Your task to perform on an android device: toggle location history Image 0: 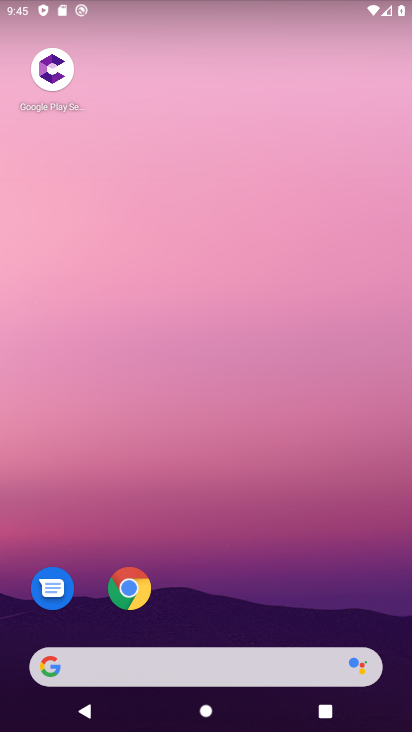
Step 0: drag from (217, 573) to (315, 110)
Your task to perform on an android device: toggle location history Image 1: 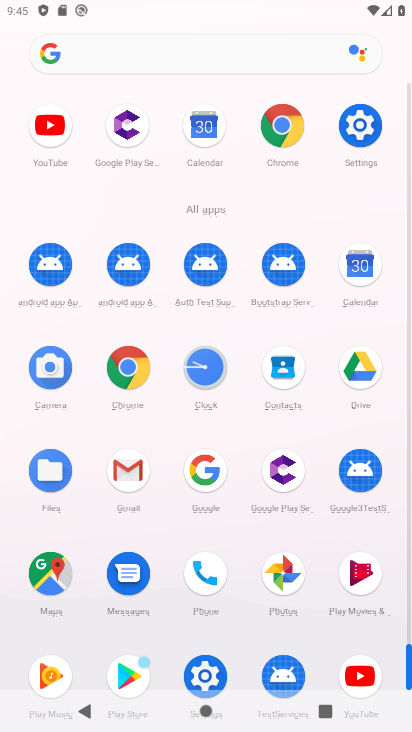
Step 1: click (371, 137)
Your task to perform on an android device: toggle location history Image 2: 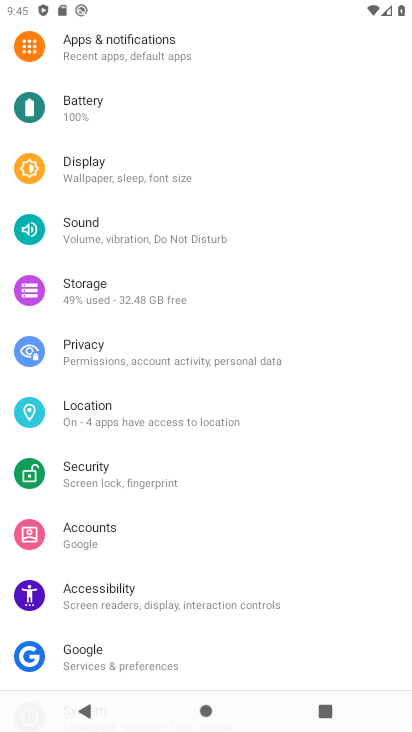
Step 2: click (162, 427)
Your task to perform on an android device: toggle location history Image 3: 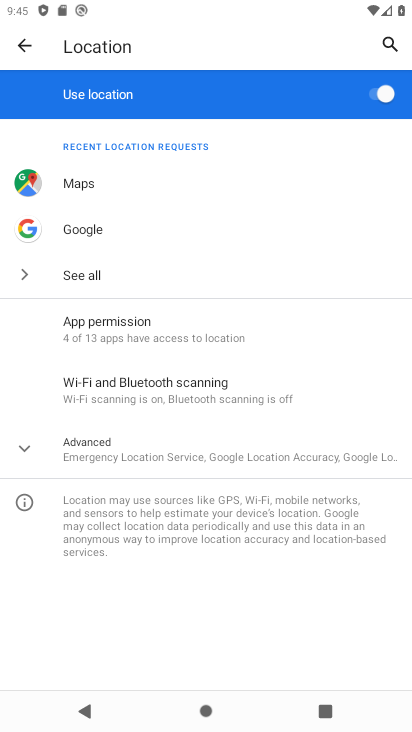
Step 3: click (151, 456)
Your task to perform on an android device: toggle location history Image 4: 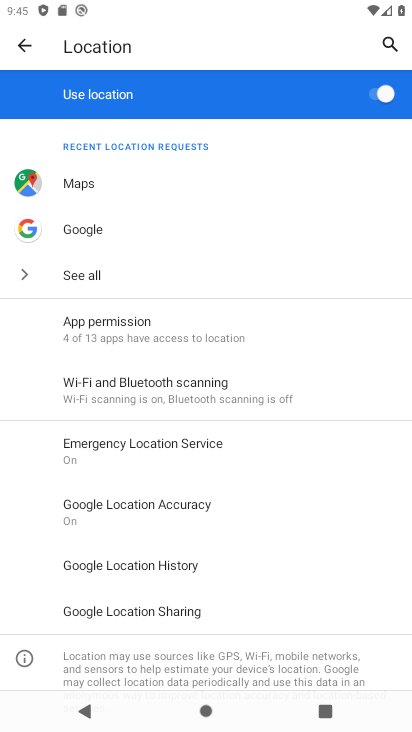
Step 4: click (169, 571)
Your task to perform on an android device: toggle location history Image 5: 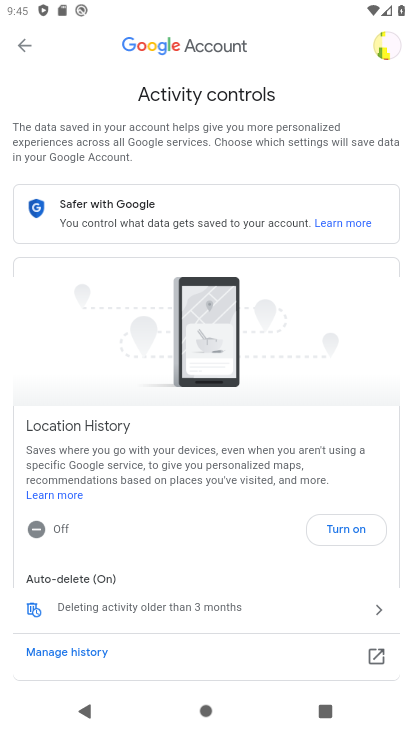
Step 5: click (337, 523)
Your task to perform on an android device: toggle location history Image 6: 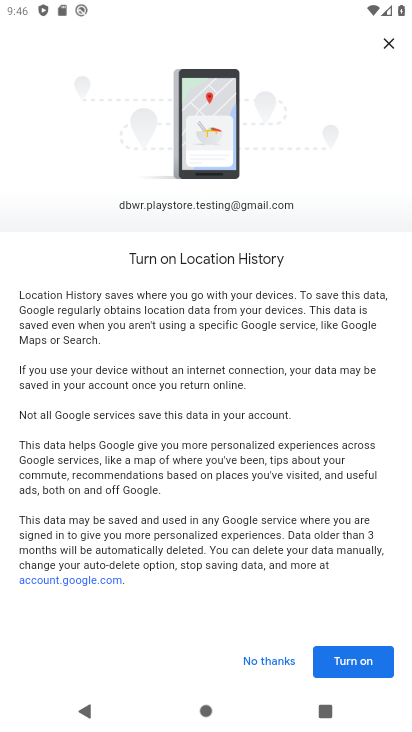
Step 6: click (353, 665)
Your task to perform on an android device: toggle location history Image 7: 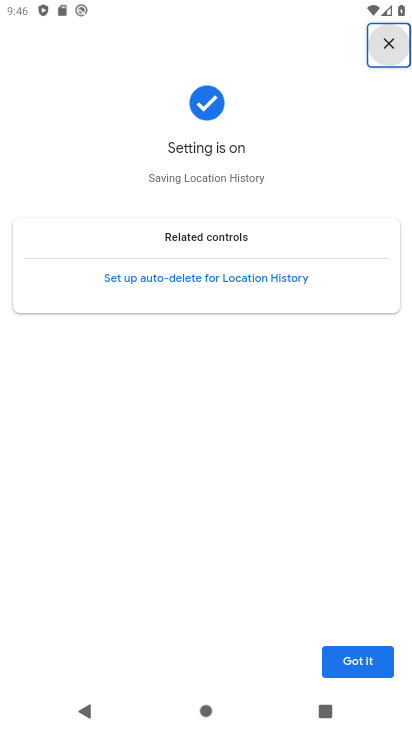
Step 7: click (357, 657)
Your task to perform on an android device: toggle location history Image 8: 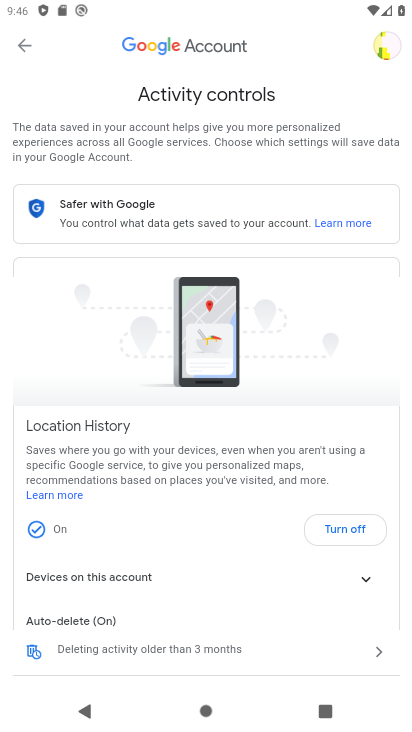
Step 8: task complete